Your task to perform on an android device: Search for Mexican restaurants on Maps Image 0: 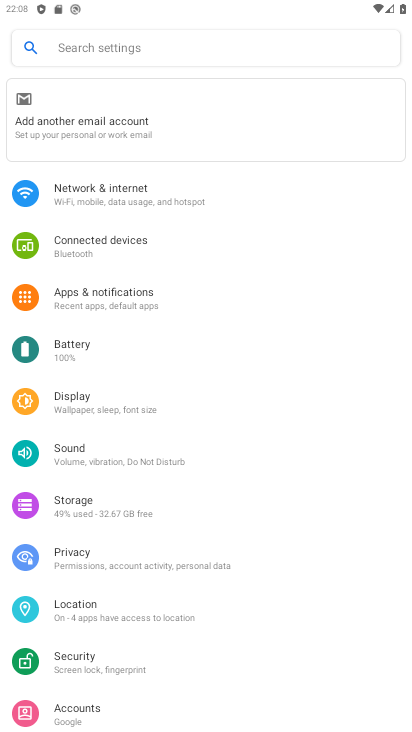
Step 0: press home button
Your task to perform on an android device: Search for Mexican restaurants on Maps Image 1: 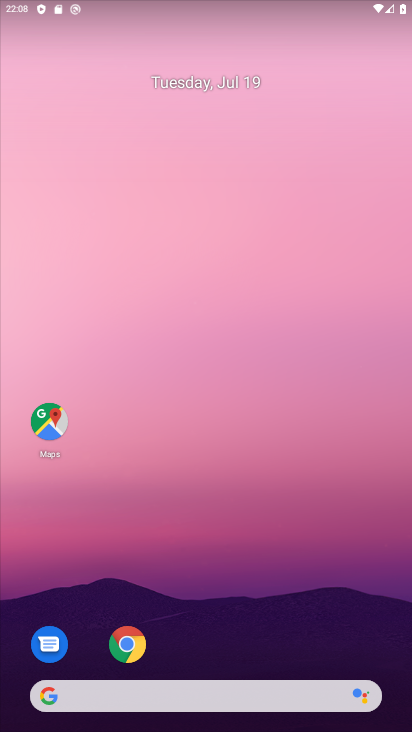
Step 1: drag from (299, 576) to (339, 38)
Your task to perform on an android device: Search for Mexican restaurants on Maps Image 2: 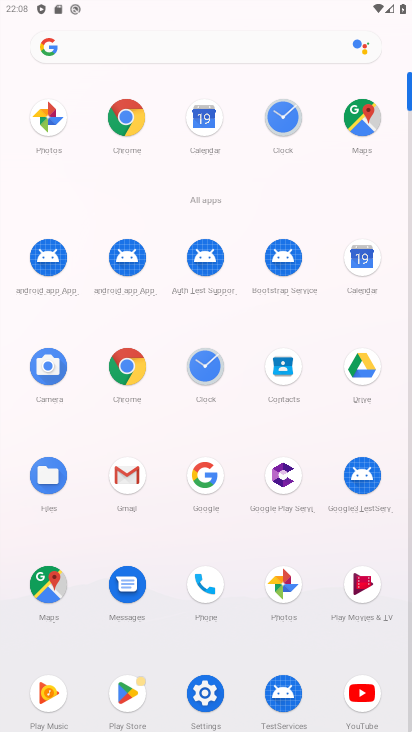
Step 2: click (50, 577)
Your task to perform on an android device: Search for Mexican restaurants on Maps Image 3: 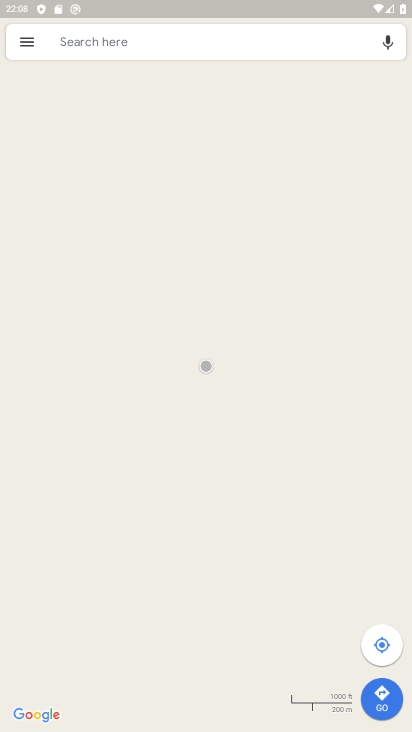
Step 3: click (109, 37)
Your task to perform on an android device: Search for Mexican restaurants on Maps Image 4: 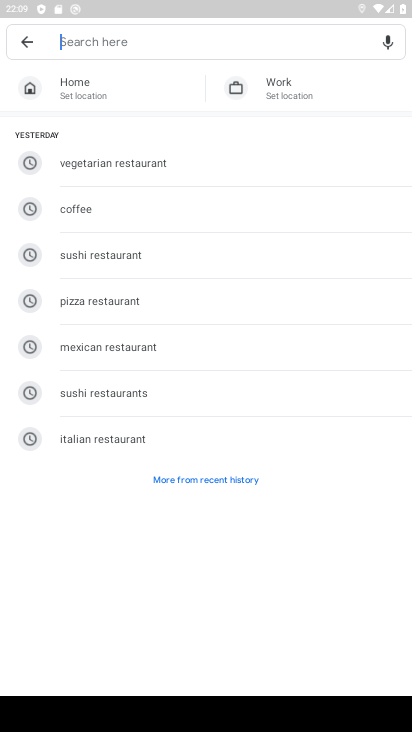
Step 4: type " Mexican restaurants"
Your task to perform on an android device: Search for Mexican restaurants on Maps Image 5: 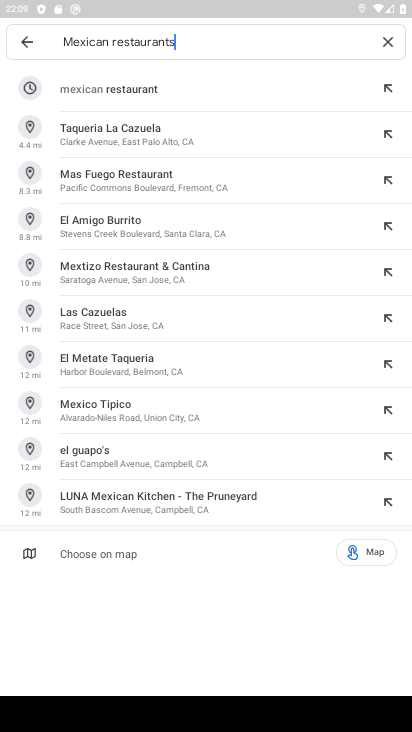
Step 5: click (115, 84)
Your task to perform on an android device: Search for Mexican restaurants on Maps Image 6: 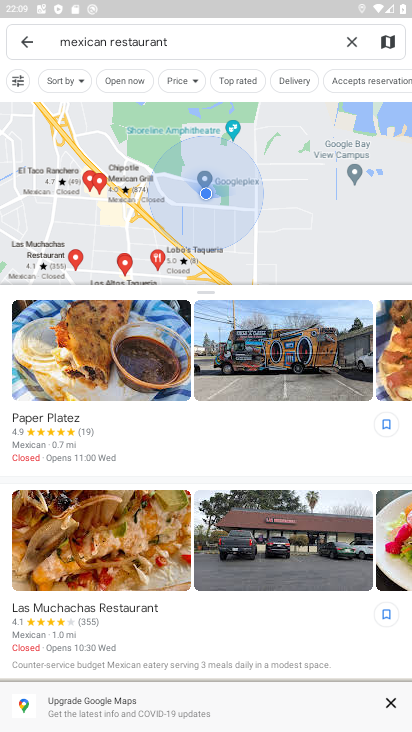
Step 6: task complete